Your task to perform on an android device: Clear all items from cart on amazon.com. Search for "acer predator" on amazon.com, select the first entry, and add it to the cart. Image 0: 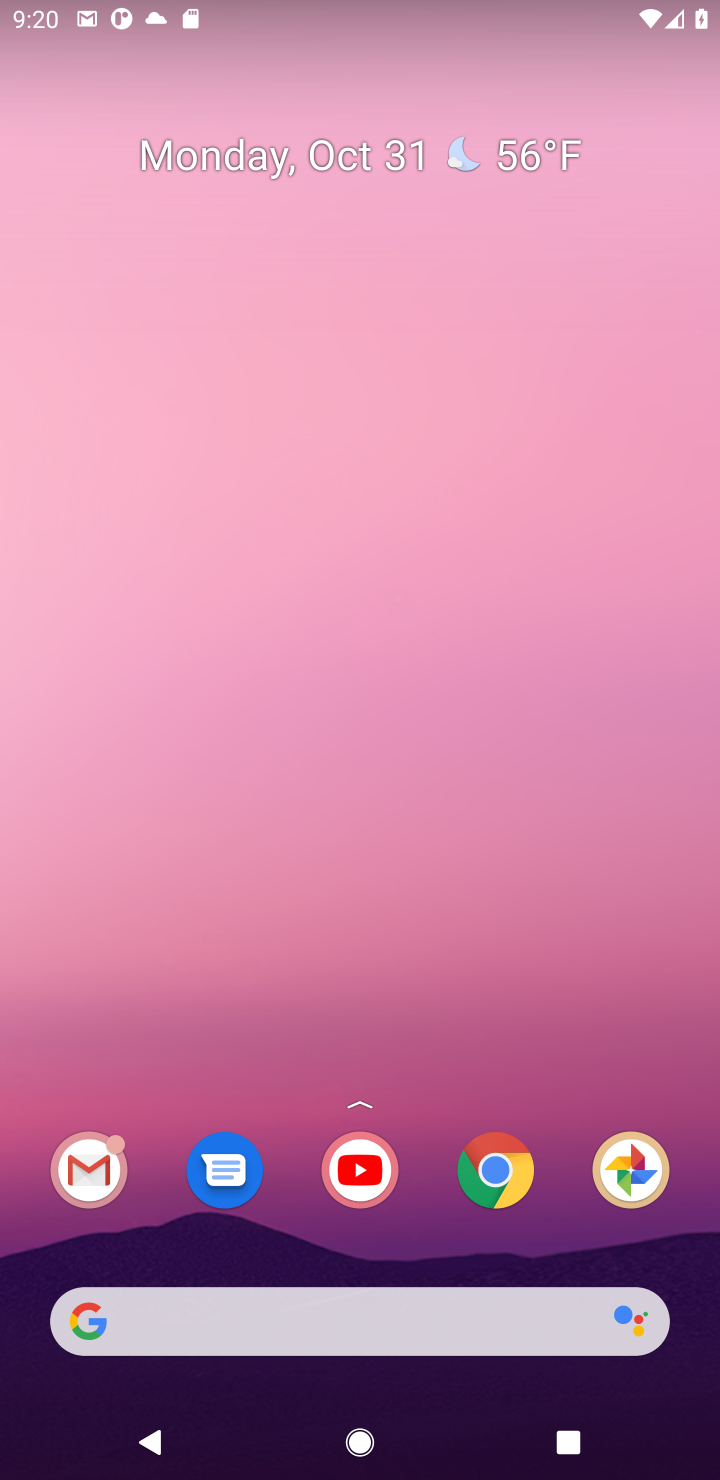
Step 0: click (500, 1188)
Your task to perform on an android device: Clear all items from cart on amazon.com. Search for "acer predator" on amazon.com, select the first entry, and add it to the cart. Image 1: 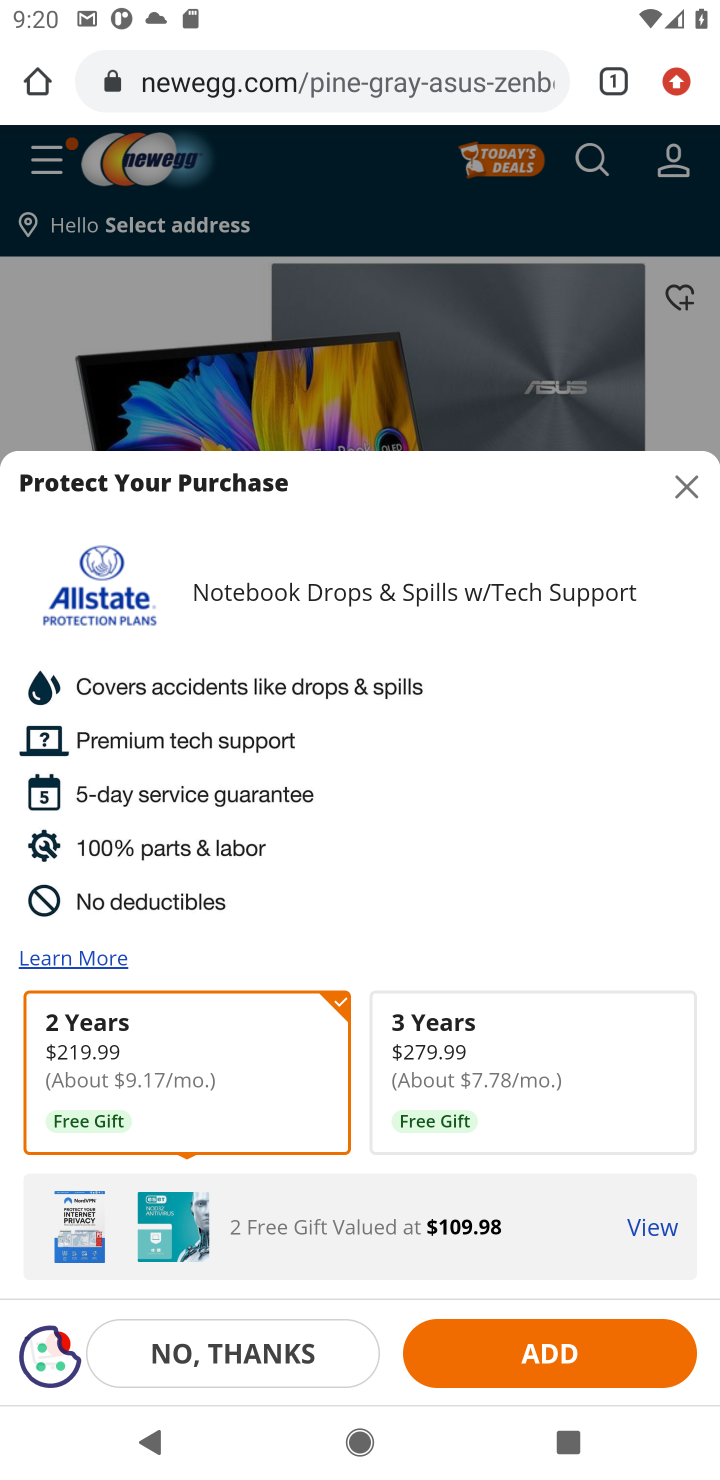
Step 1: click (373, 70)
Your task to perform on an android device: Clear all items from cart on amazon.com. Search for "acer predator" on amazon.com, select the first entry, and add it to the cart. Image 2: 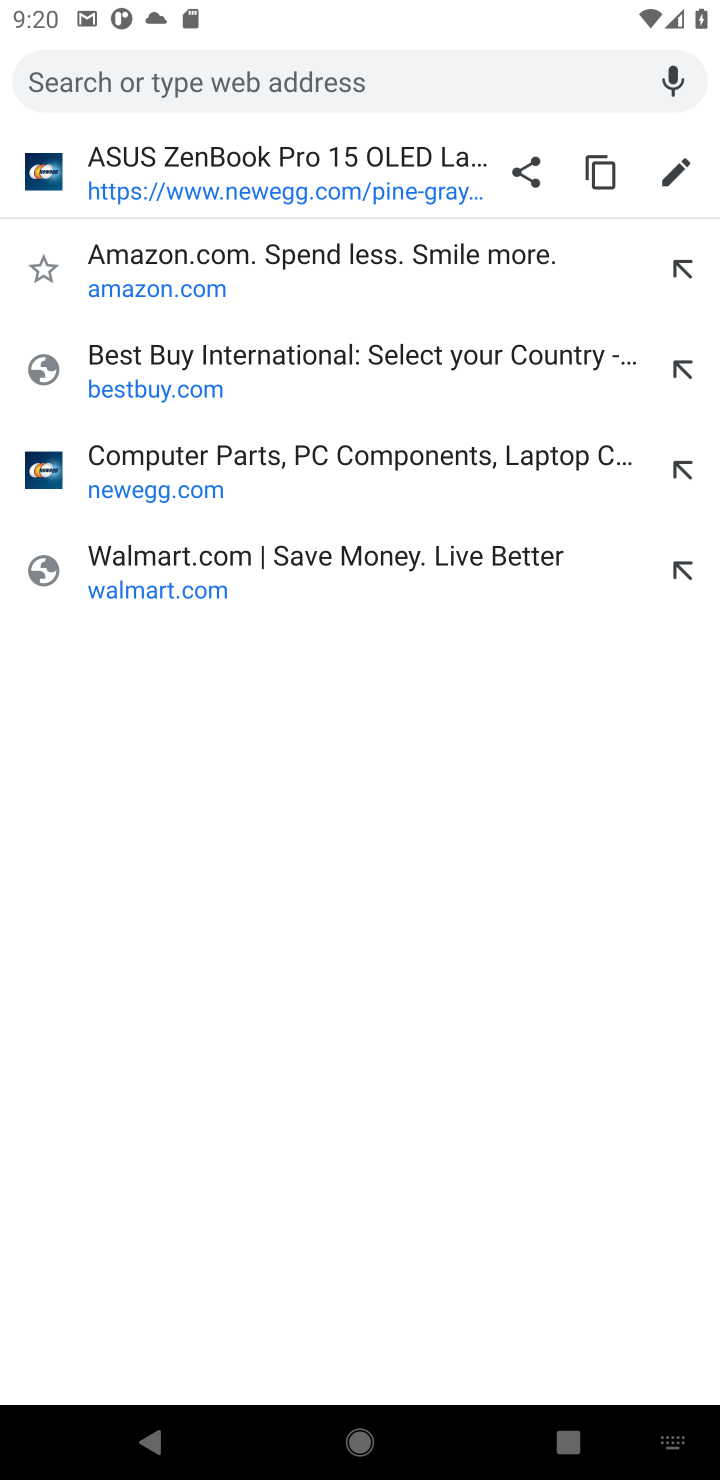
Step 2: click (373, 70)
Your task to perform on an android device: Clear all items from cart on amazon.com. Search for "acer predator" on amazon.com, select the first entry, and add it to the cart. Image 3: 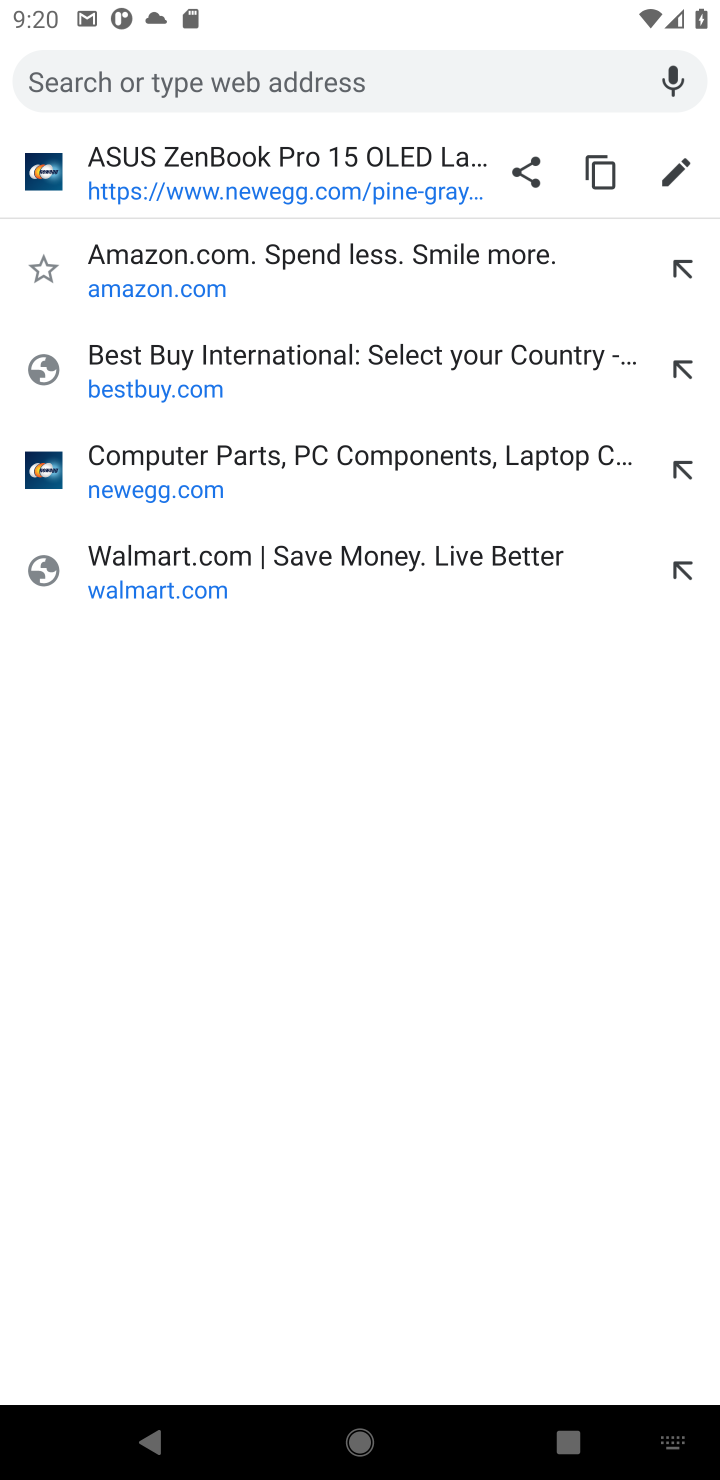
Step 3: click (313, 271)
Your task to perform on an android device: Clear all items from cart on amazon.com. Search for "acer predator" on amazon.com, select the first entry, and add it to the cart. Image 4: 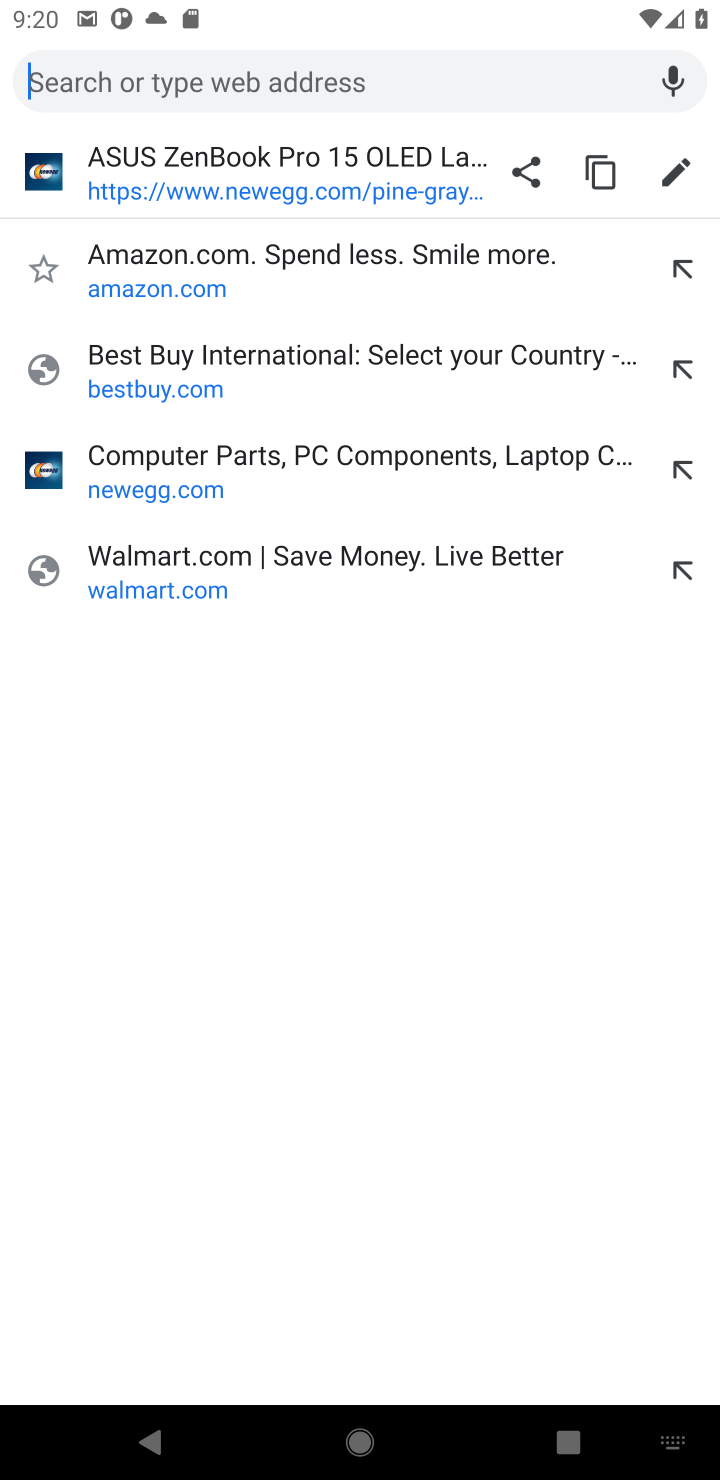
Step 4: click (305, 253)
Your task to perform on an android device: Clear all items from cart on amazon.com. Search for "acer predator" on amazon.com, select the first entry, and add it to the cart. Image 5: 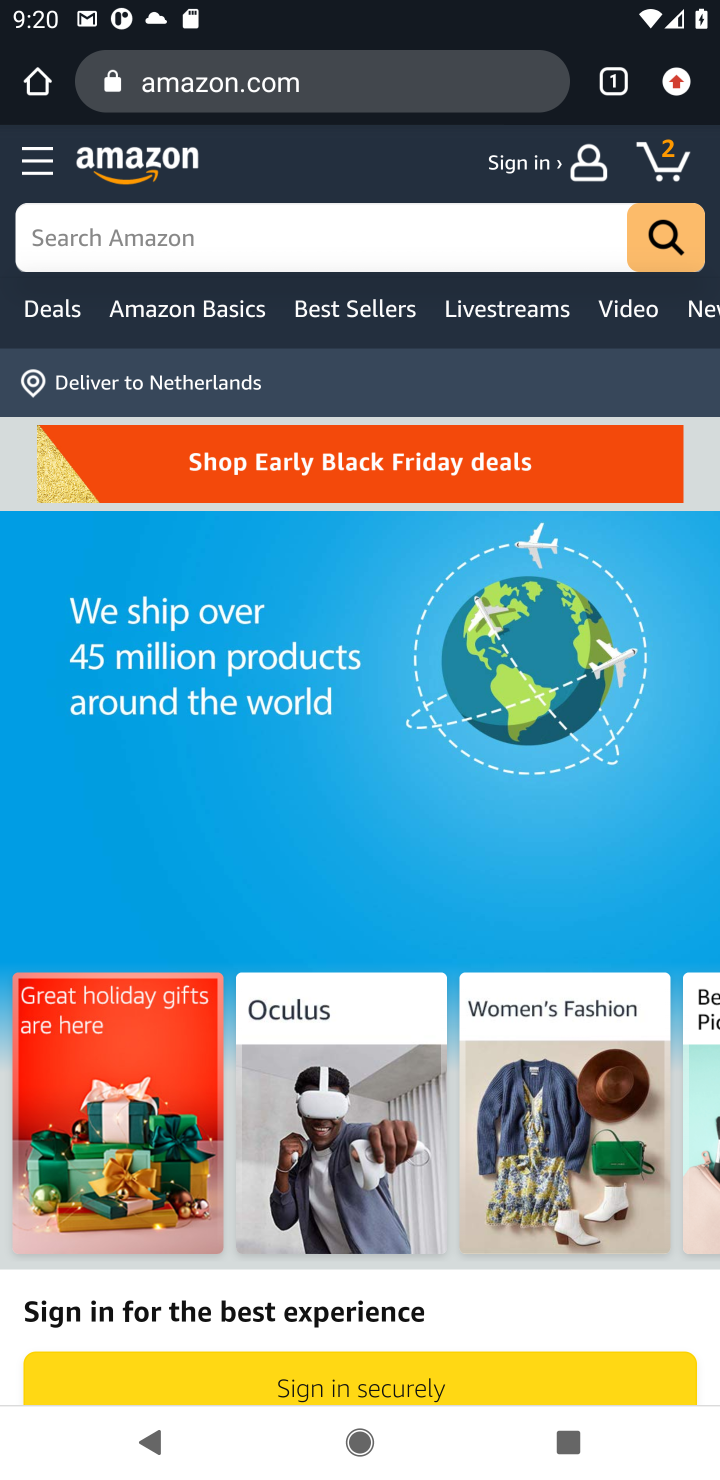
Step 5: click (683, 164)
Your task to perform on an android device: Clear all items from cart on amazon.com. Search for "acer predator" on amazon.com, select the first entry, and add it to the cart. Image 6: 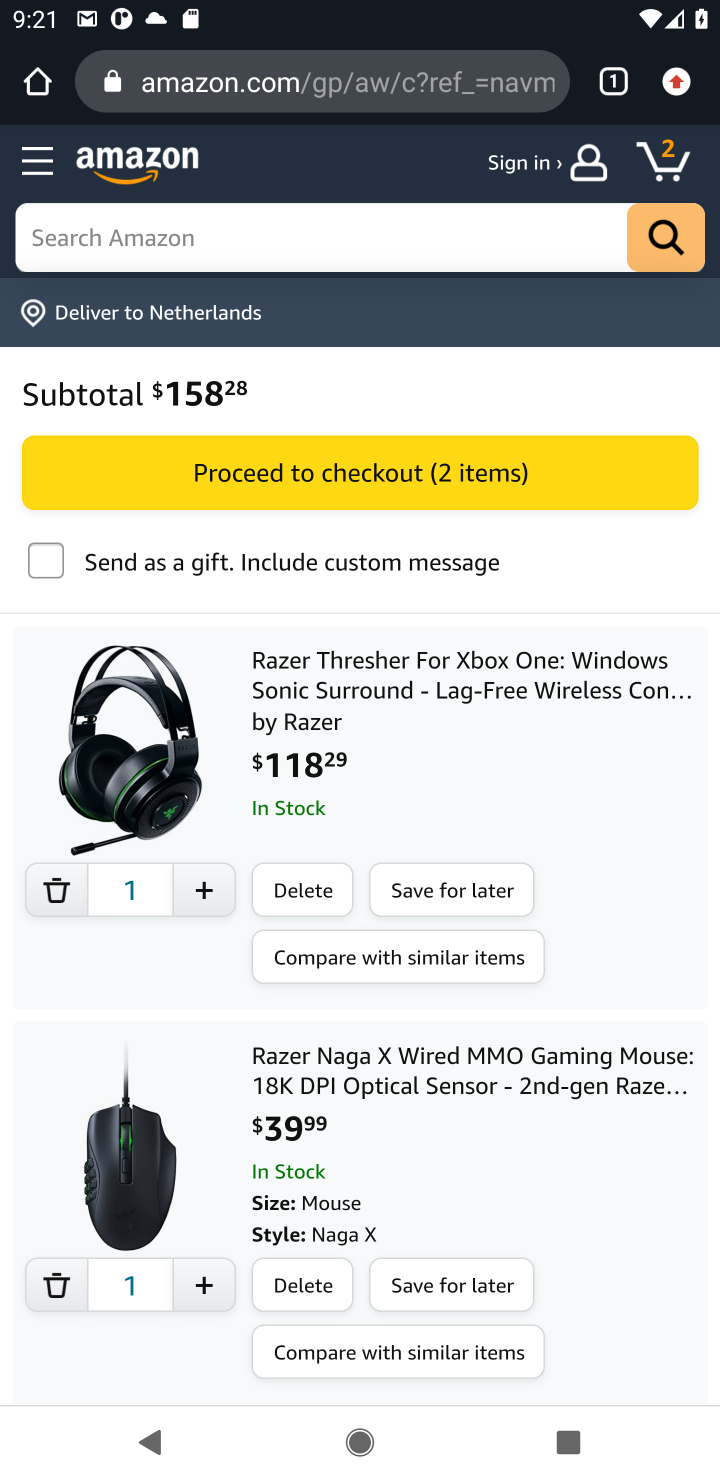
Step 6: click (278, 881)
Your task to perform on an android device: Clear all items from cart on amazon.com. Search for "acer predator" on amazon.com, select the first entry, and add it to the cart. Image 7: 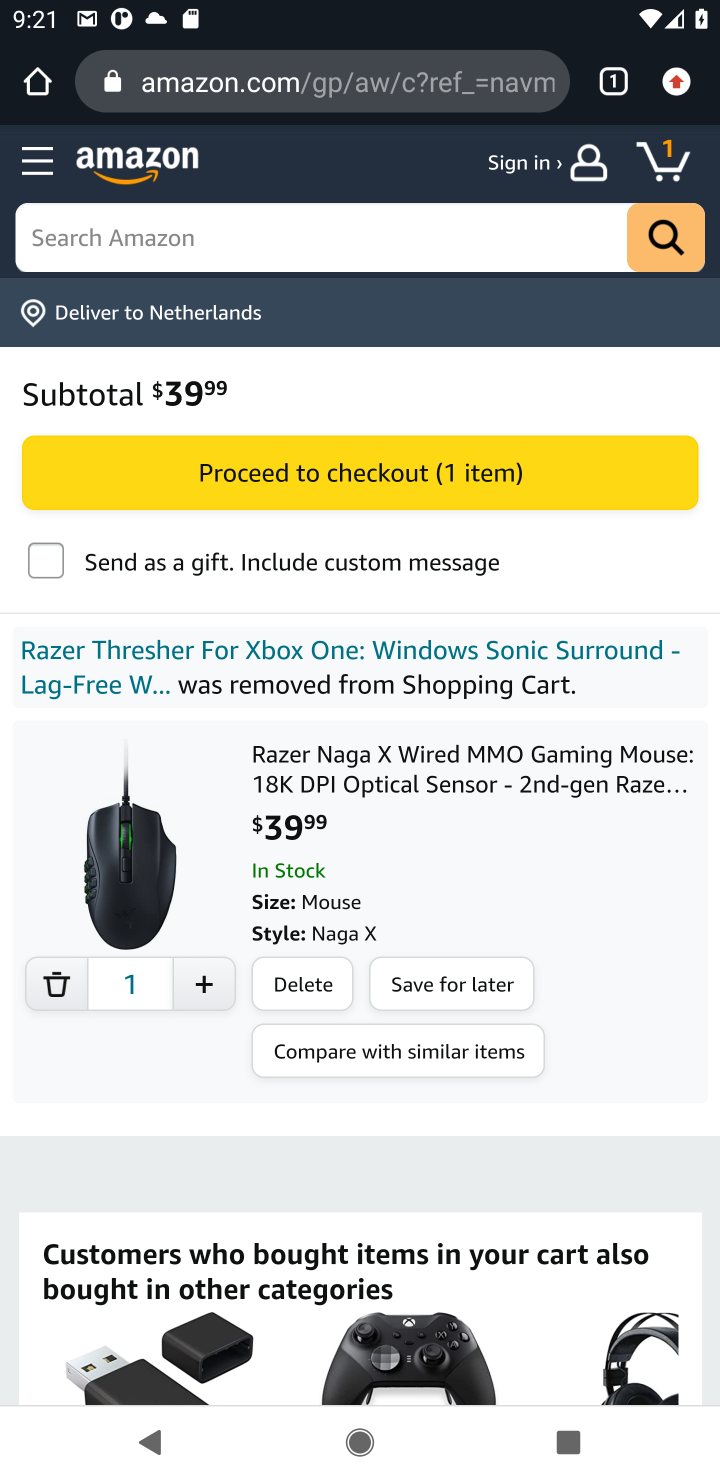
Step 7: click (306, 974)
Your task to perform on an android device: Clear all items from cart on amazon.com. Search for "acer predator" on amazon.com, select the first entry, and add it to the cart. Image 8: 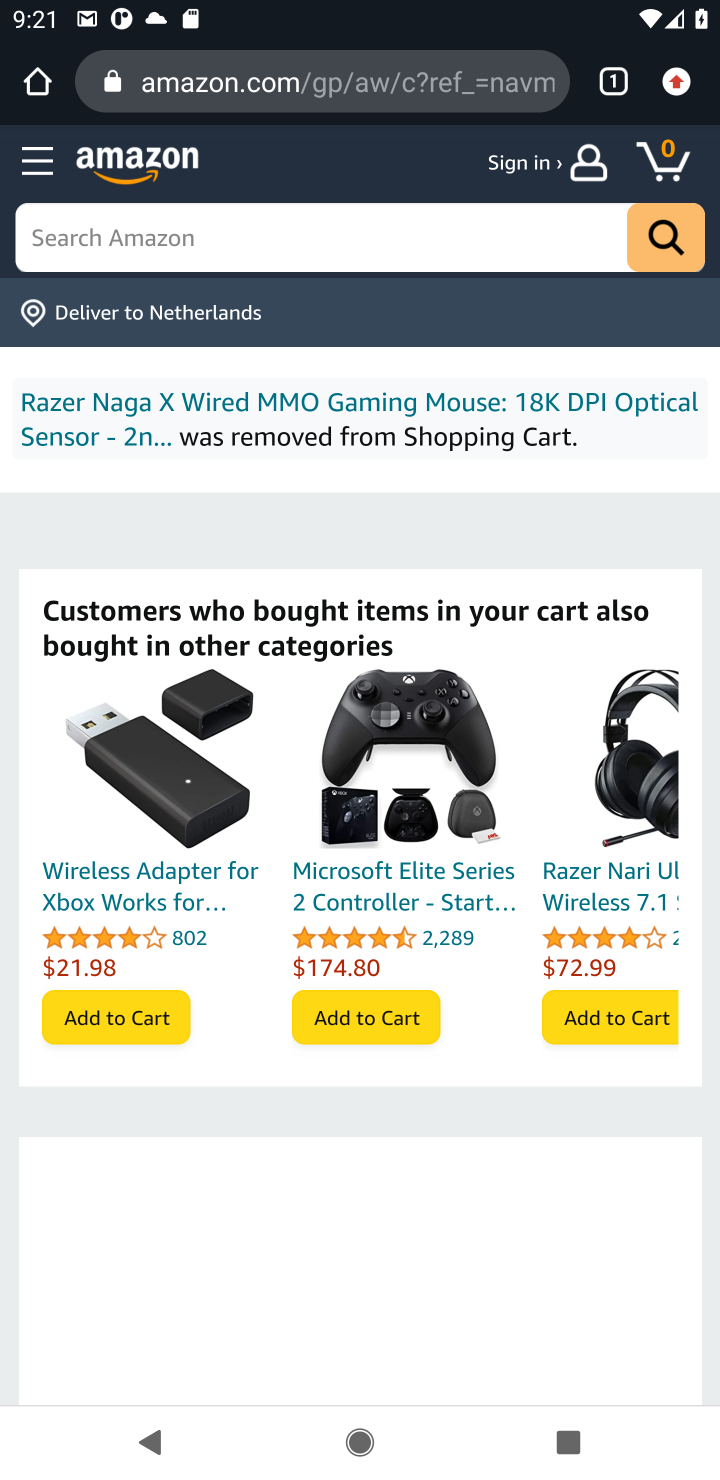
Step 8: click (185, 250)
Your task to perform on an android device: Clear all items from cart on amazon.com. Search for "acer predator" on amazon.com, select the first entry, and add it to the cart. Image 9: 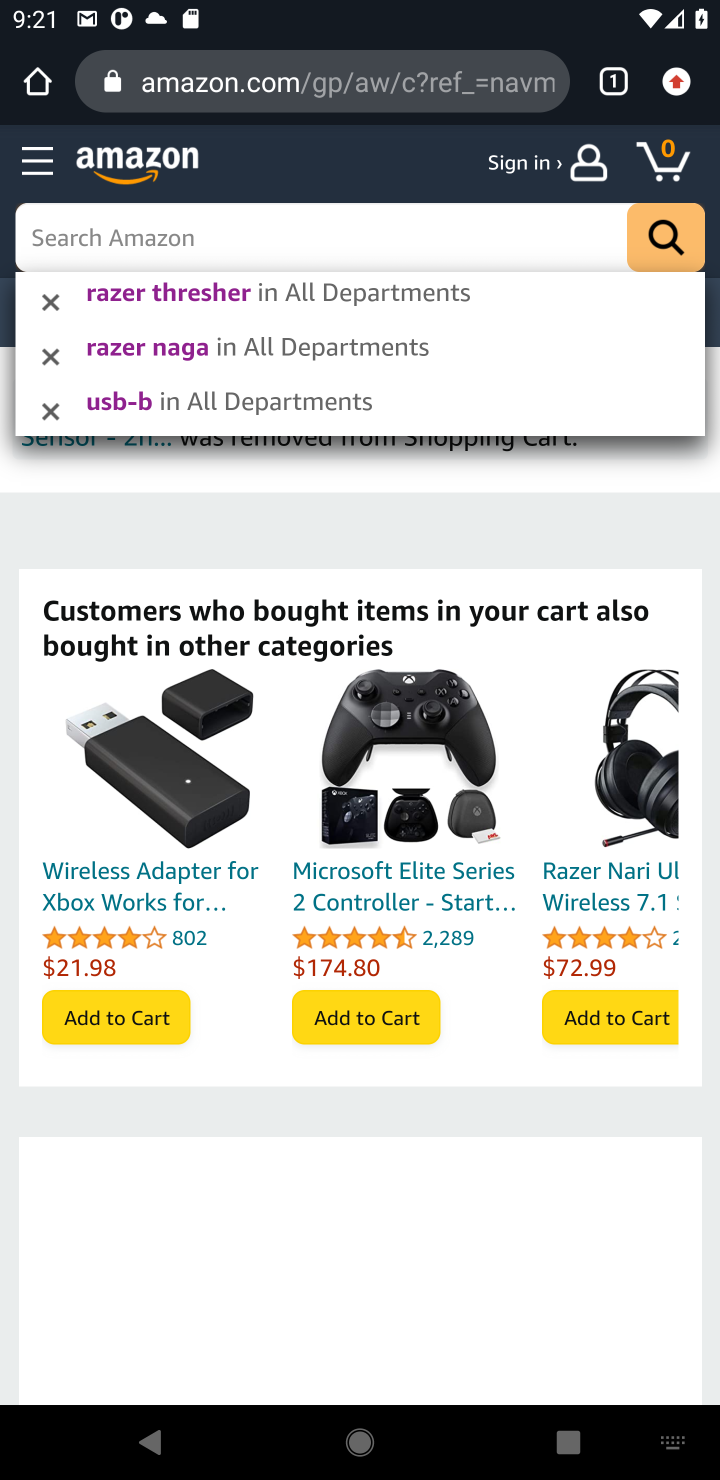
Step 9: type "acer predator"
Your task to perform on an android device: Clear all items from cart on amazon.com. Search for "acer predator" on amazon.com, select the first entry, and add it to the cart. Image 10: 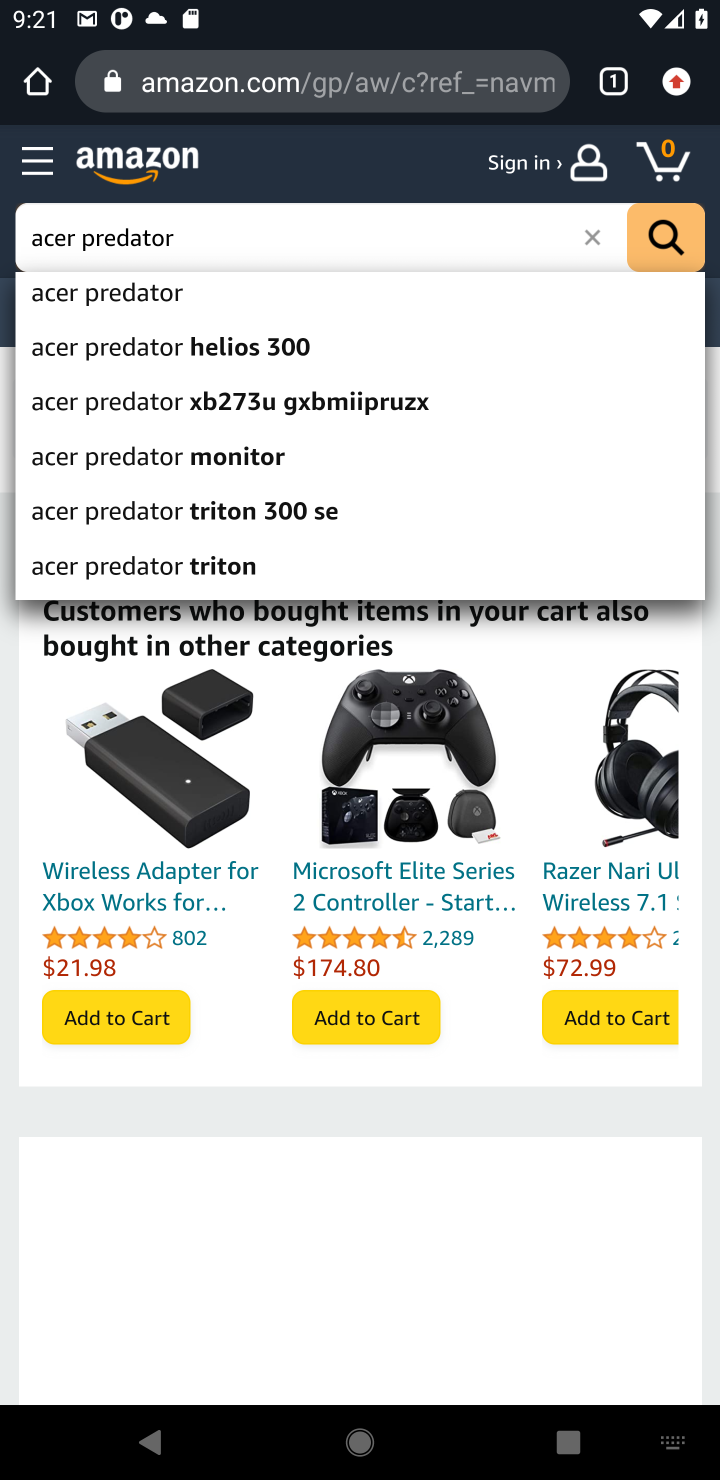
Step 10: click (649, 227)
Your task to perform on an android device: Clear all items from cart on amazon.com. Search for "acer predator" on amazon.com, select the first entry, and add it to the cart. Image 11: 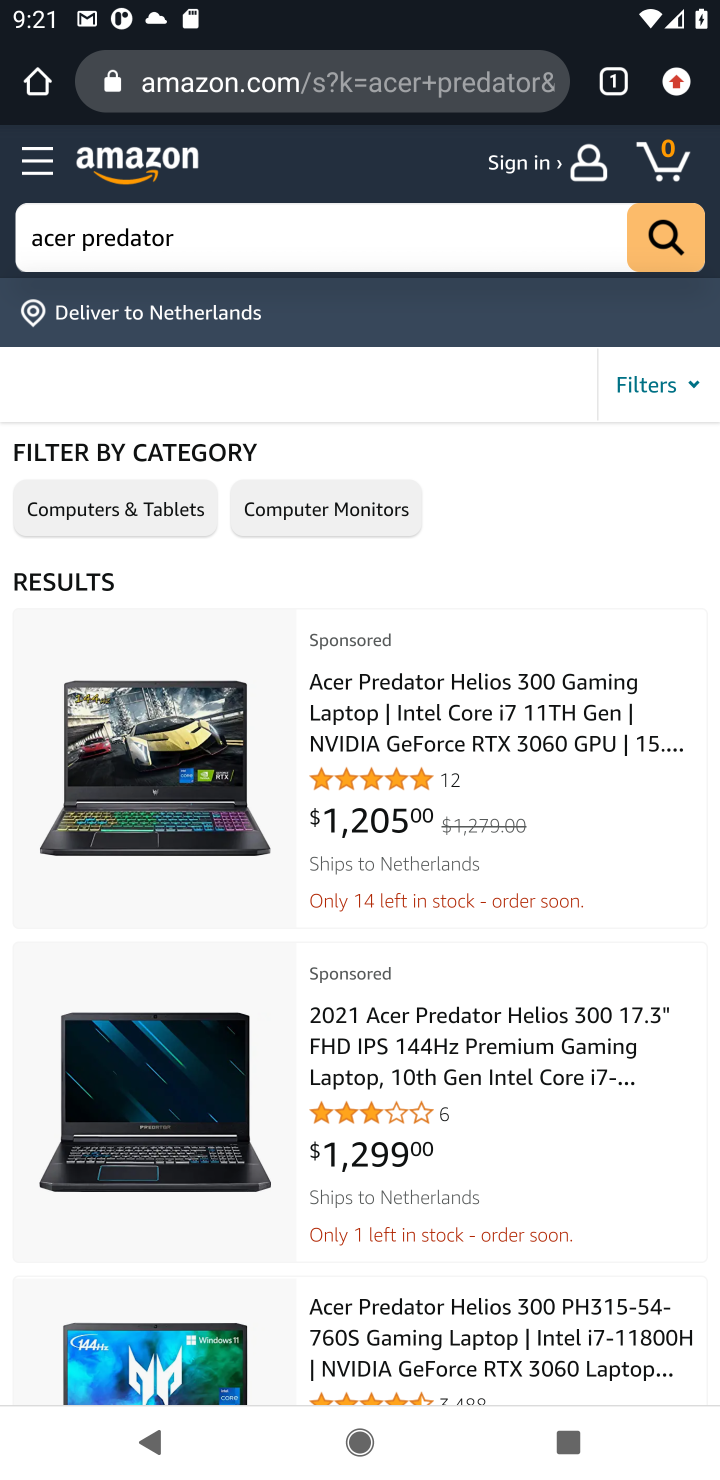
Step 11: click (407, 679)
Your task to perform on an android device: Clear all items from cart on amazon.com. Search for "acer predator" on amazon.com, select the first entry, and add it to the cart. Image 12: 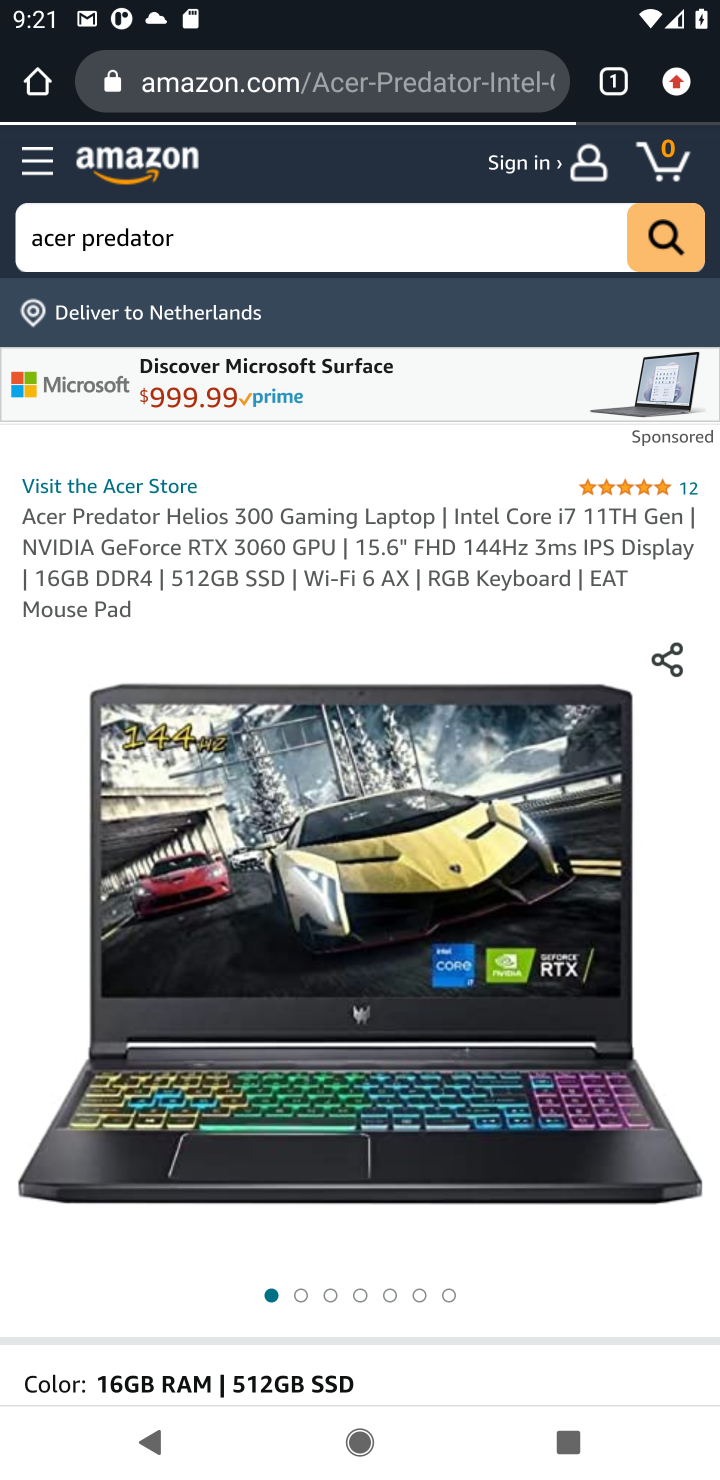
Step 12: drag from (353, 1318) to (457, 734)
Your task to perform on an android device: Clear all items from cart on amazon.com. Search for "acer predator" on amazon.com, select the first entry, and add it to the cart. Image 13: 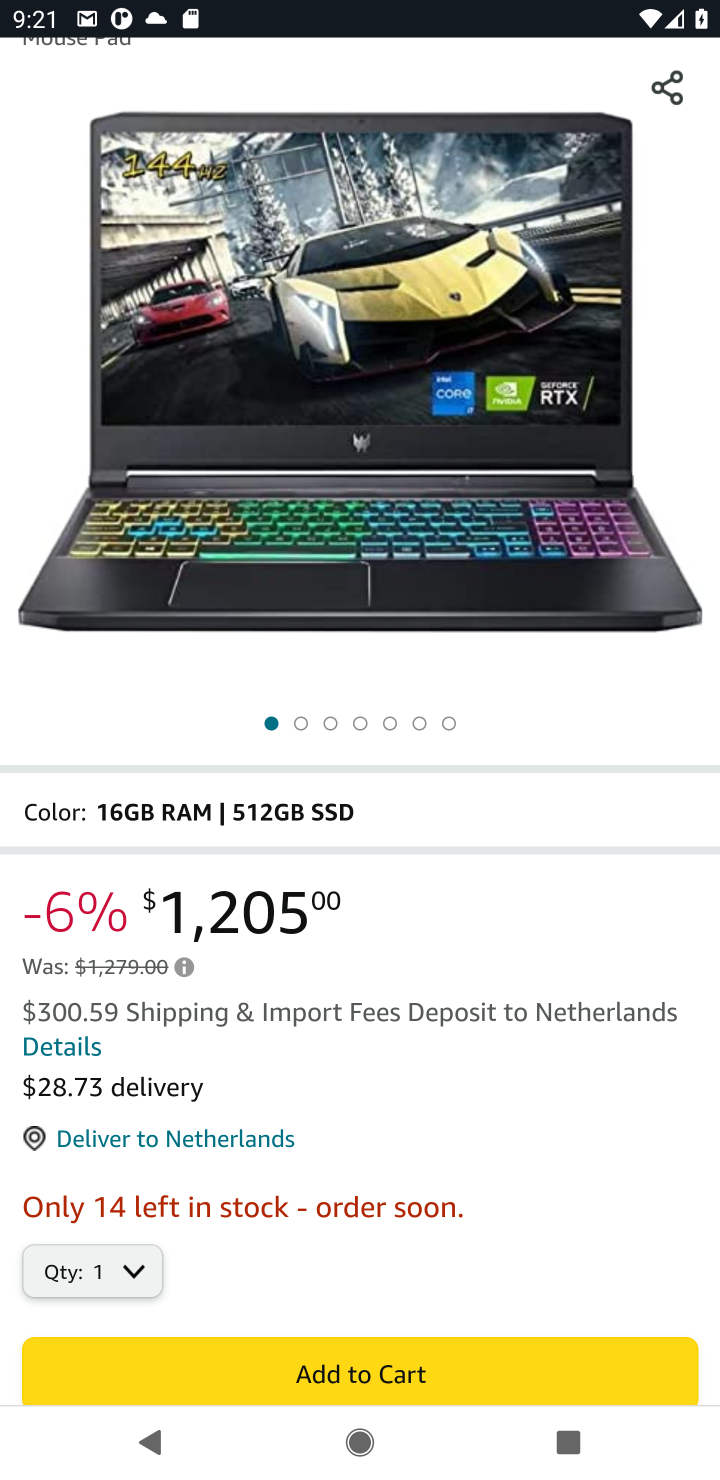
Step 13: click (407, 1361)
Your task to perform on an android device: Clear all items from cart on amazon.com. Search for "acer predator" on amazon.com, select the first entry, and add it to the cart. Image 14: 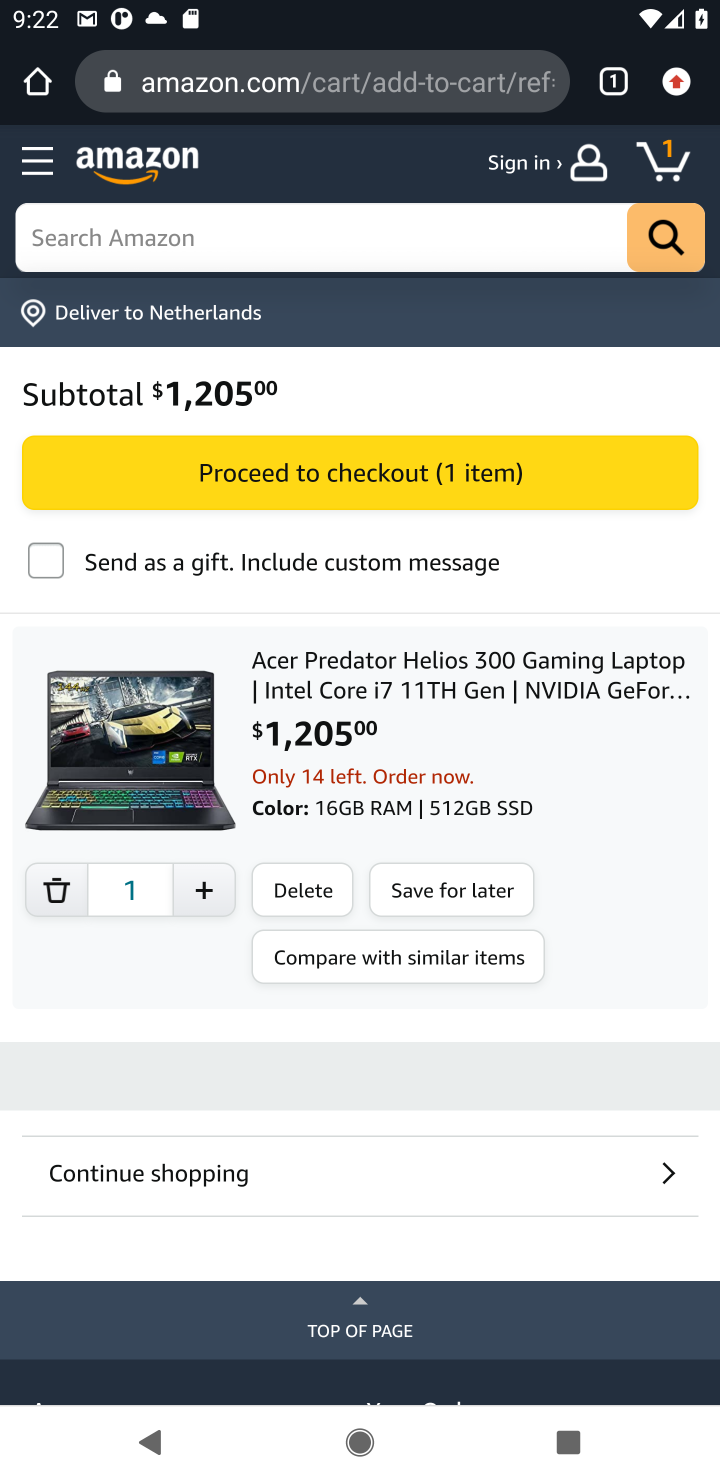
Step 14: task complete